Your task to perform on an android device: open app "Walmart Shopping & Grocery" (install if not already installed) Image 0: 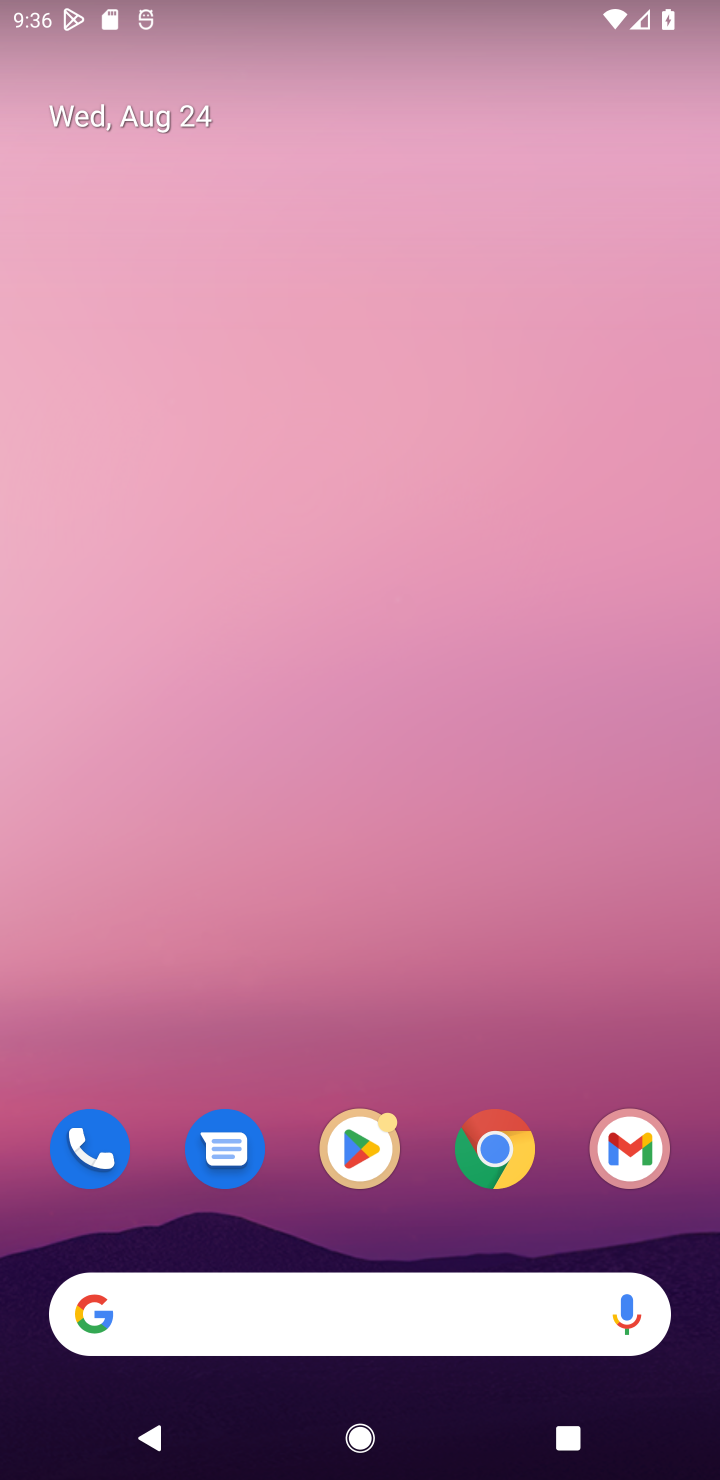
Step 0: drag from (405, 1174) to (355, 123)
Your task to perform on an android device: open app "Walmart Shopping & Grocery" (install if not already installed) Image 1: 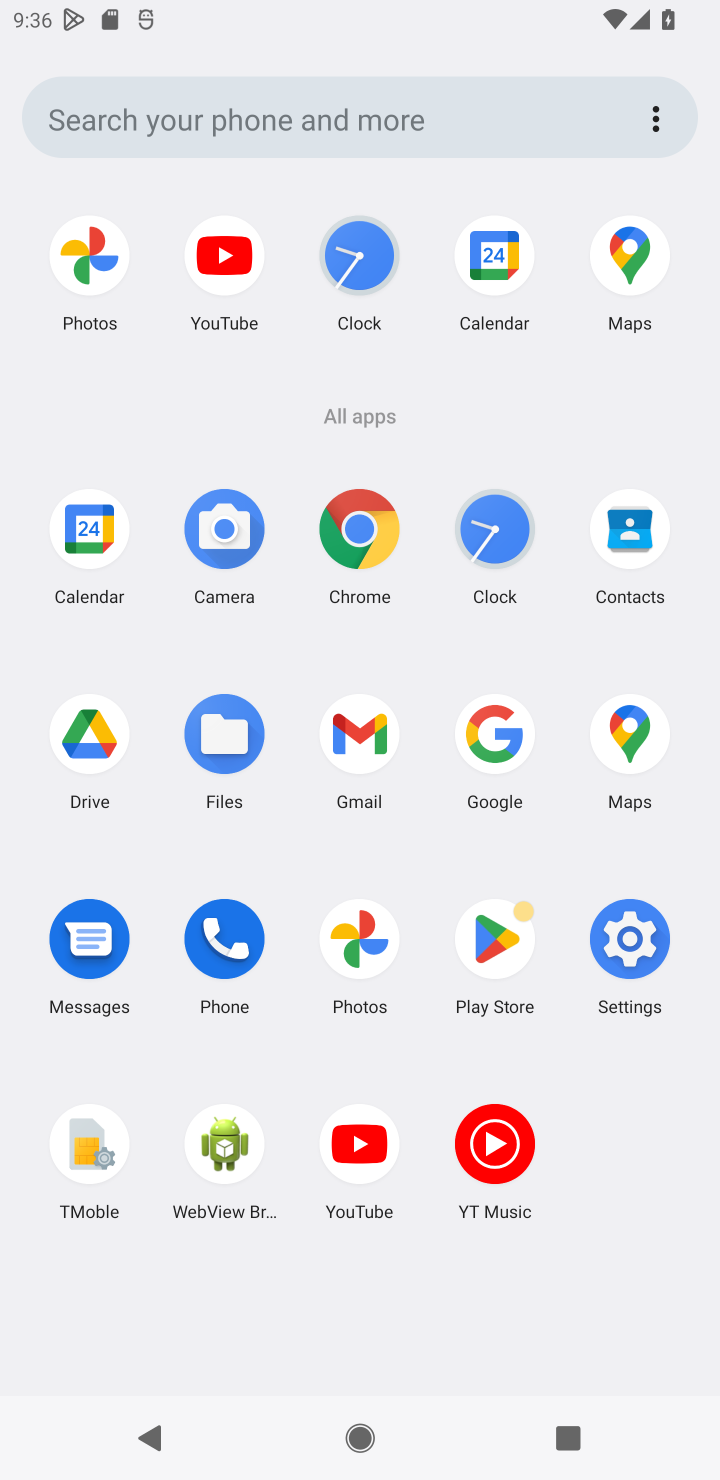
Step 1: click (491, 929)
Your task to perform on an android device: open app "Walmart Shopping & Grocery" (install if not already installed) Image 2: 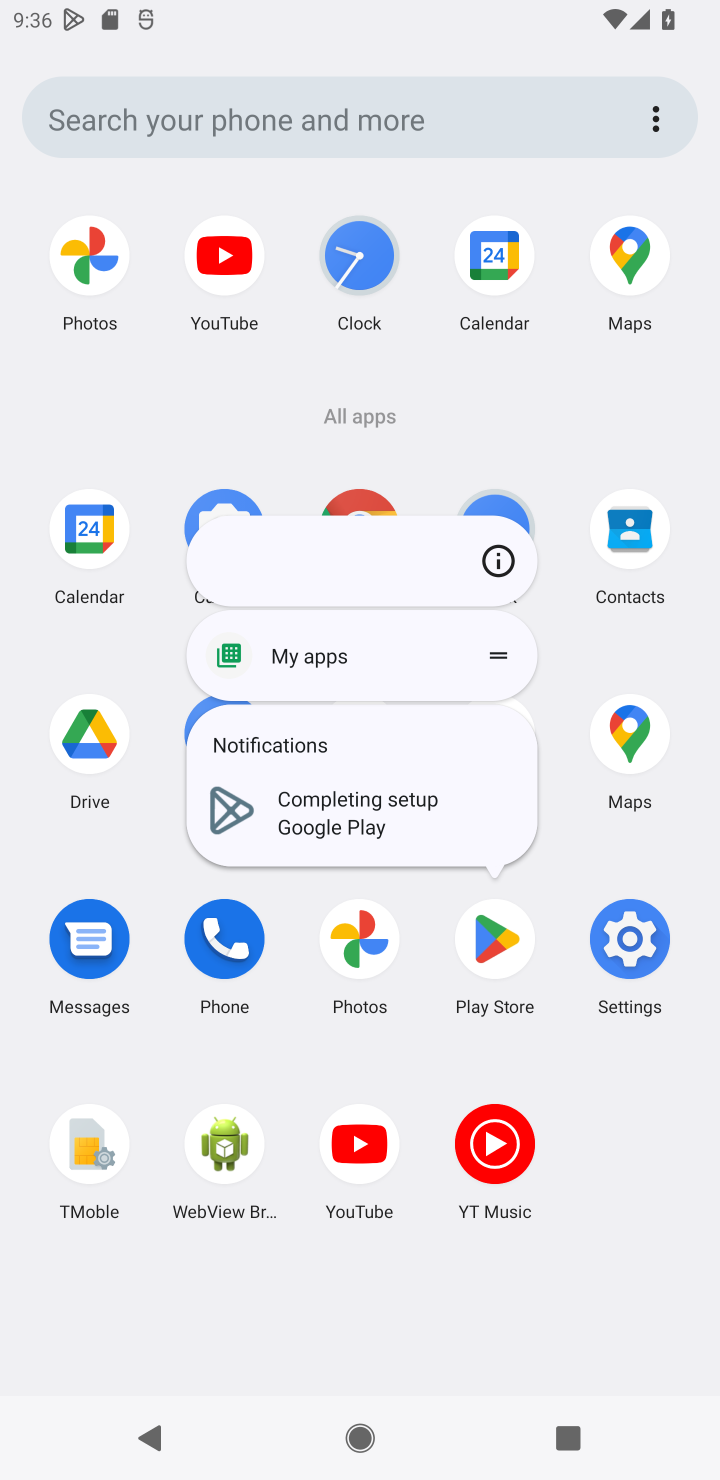
Step 2: click (491, 923)
Your task to perform on an android device: open app "Walmart Shopping & Grocery" (install if not already installed) Image 3: 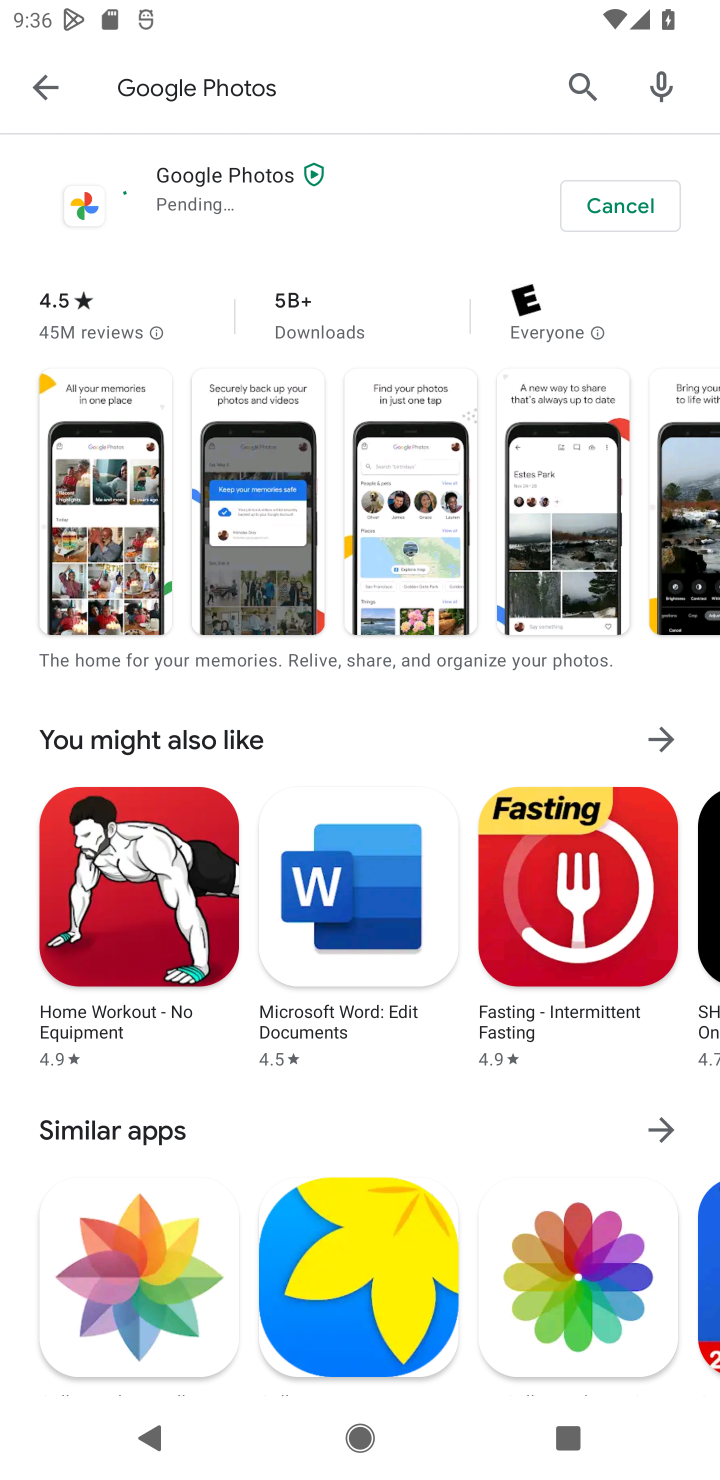
Step 3: press back button
Your task to perform on an android device: open app "Walmart Shopping & Grocery" (install if not already installed) Image 4: 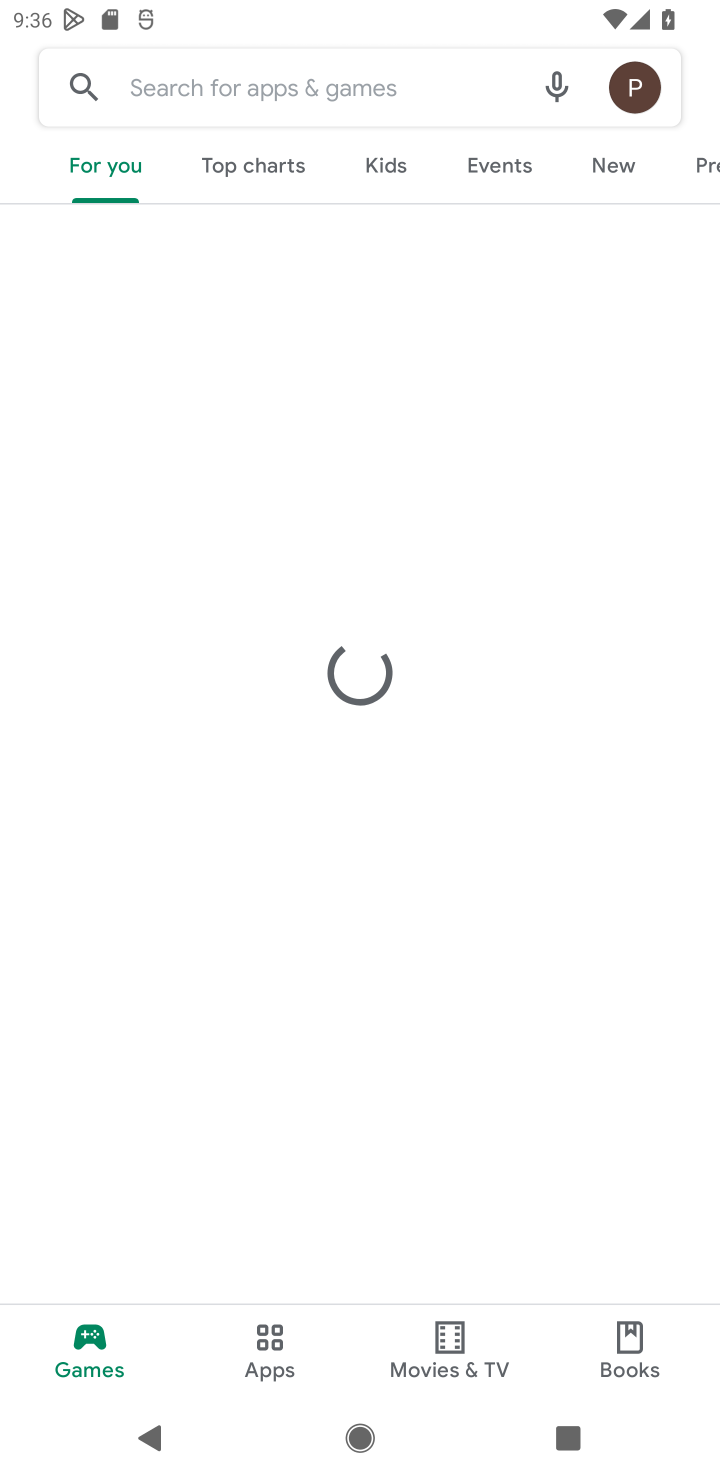
Step 4: click (254, 83)
Your task to perform on an android device: open app "Walmart Shopping & Grocery" (install if not already installed) Image 5: 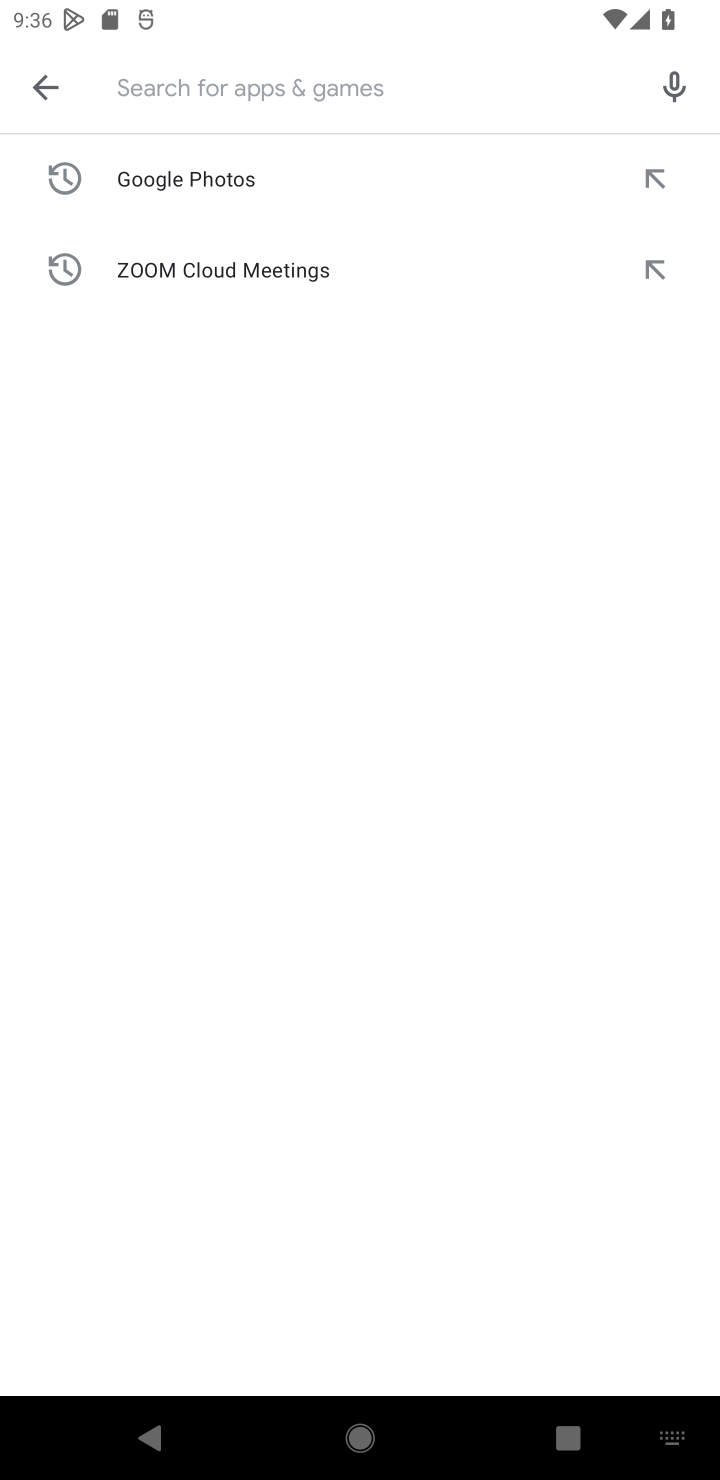
Step 5: type "Walmart Shopping & Grocery"
Your task to perform on an android device: open app "Walmart Shopping & Grocery" (install if not already installed) Image 6: 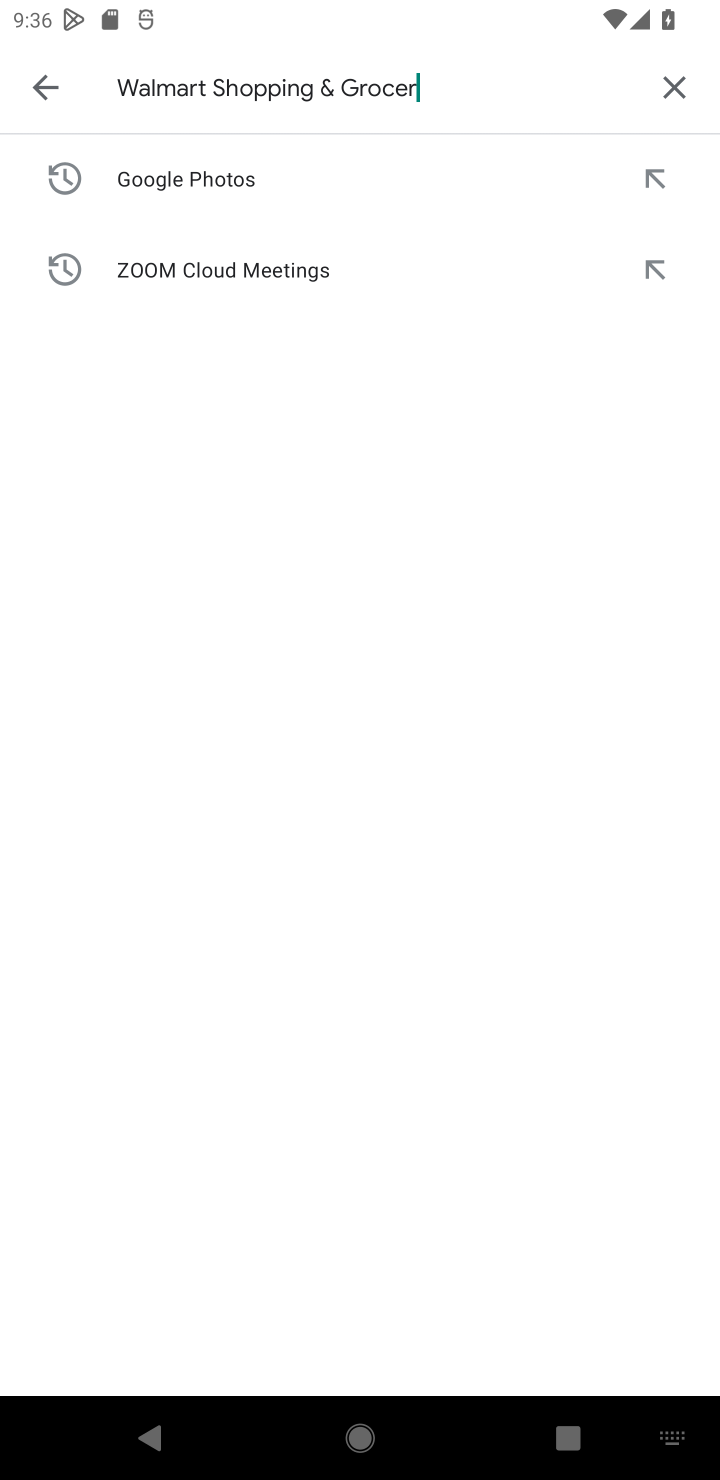
Step 6: press enter
Your task to perform on an android device: open app "Walmart Shopping & Grocery" (install if not already installed) Image 7: 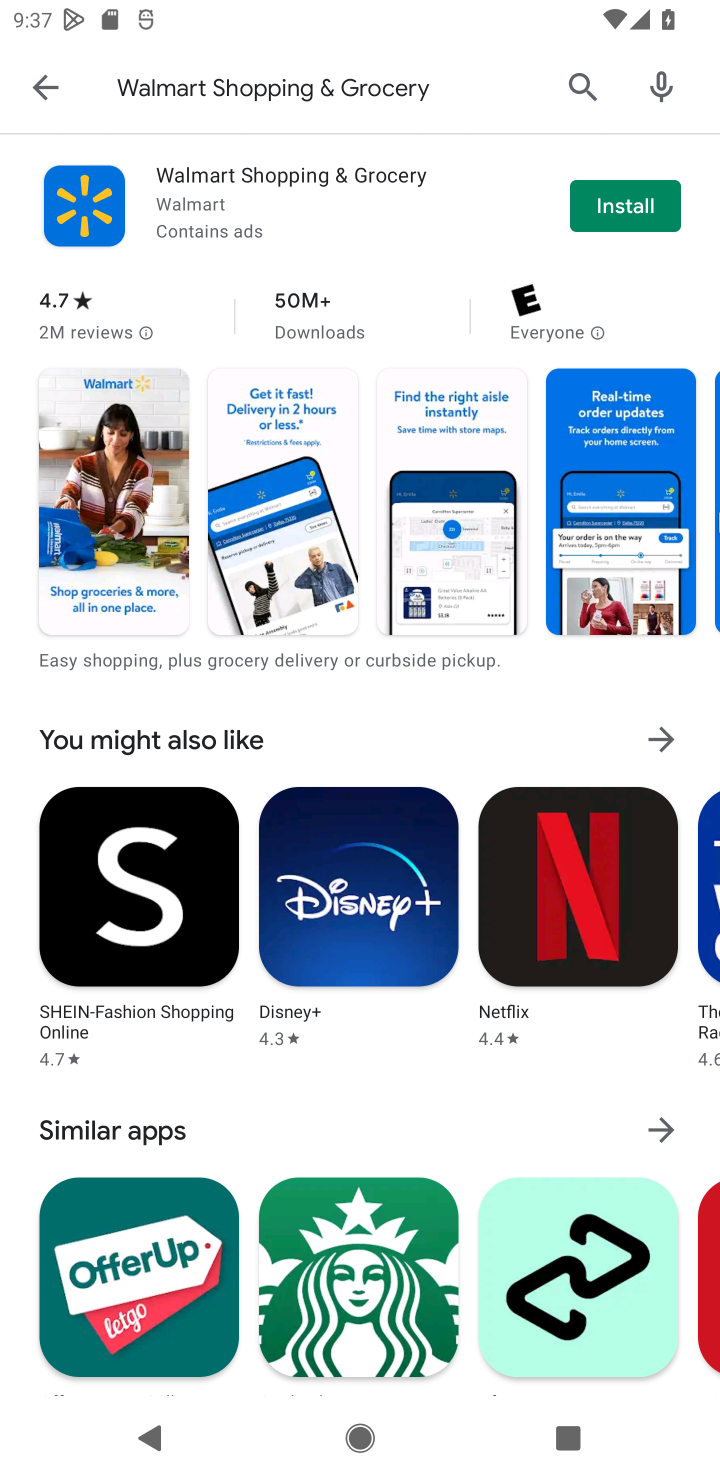
Step 7: click (646, 193)
Your task to perform on an android device: open app "Walmart Shopping & Grocery" (install if not already installed) Image 8: 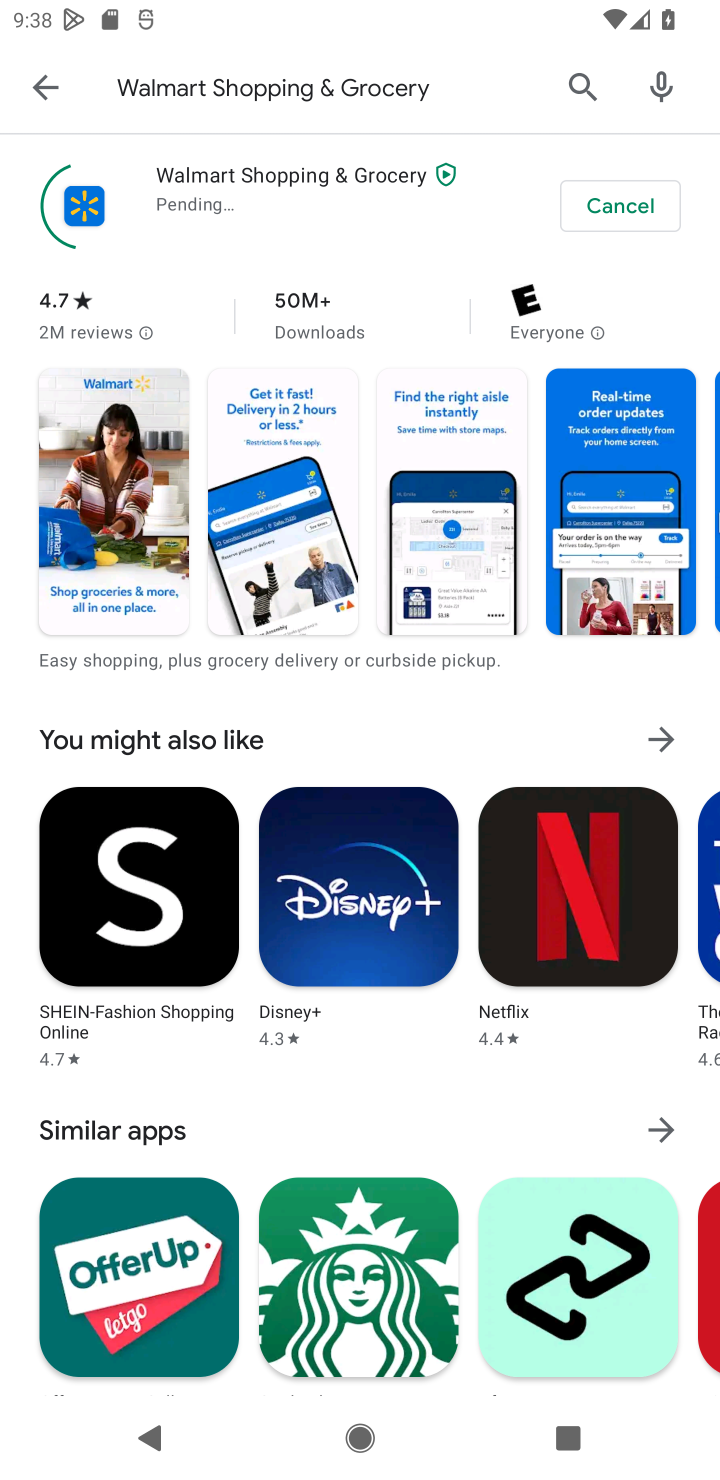
Step 8: task complete